Your task to perform on an android device: turn on translation in the chrome app Image 0: 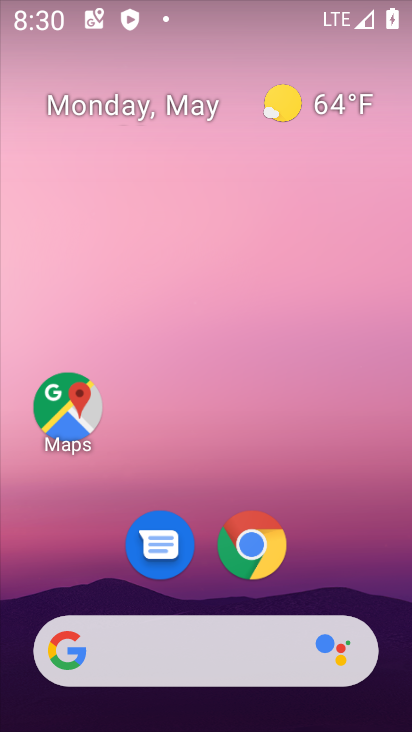
Step 0: click (248, 578)
Your task to perform on an android device: turn on translation in the chrome app Image 1: 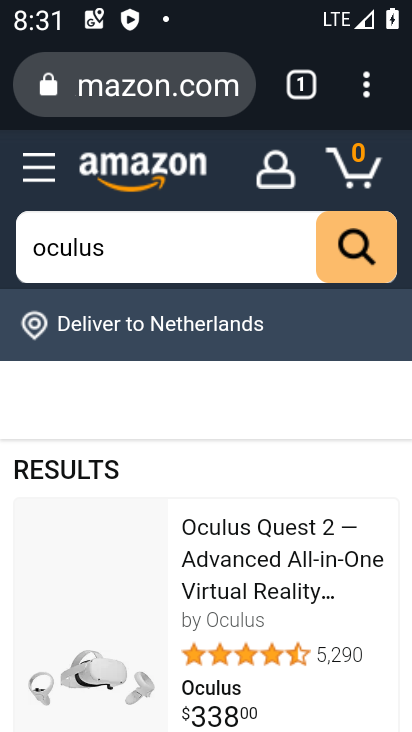
Step 1: drag from (370, 87) to (194, 591)
Your task to perform on an android device: turn on translation in the chrome app Image 2: 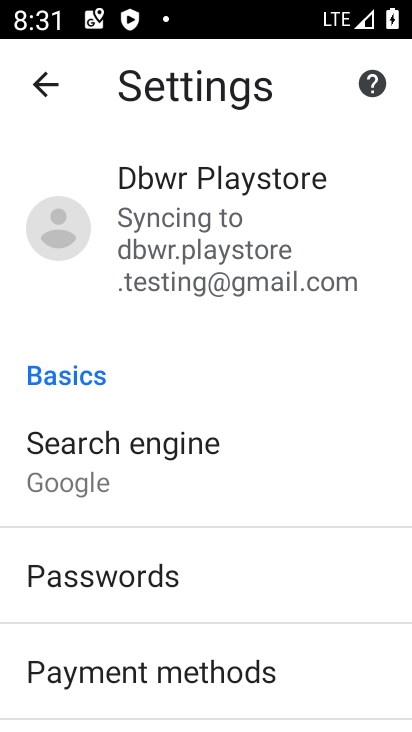
Step 2: drag from (242, 613) to (205, 177)
Your task to perform on an android device: turn on translation in the chrome app Image 3: 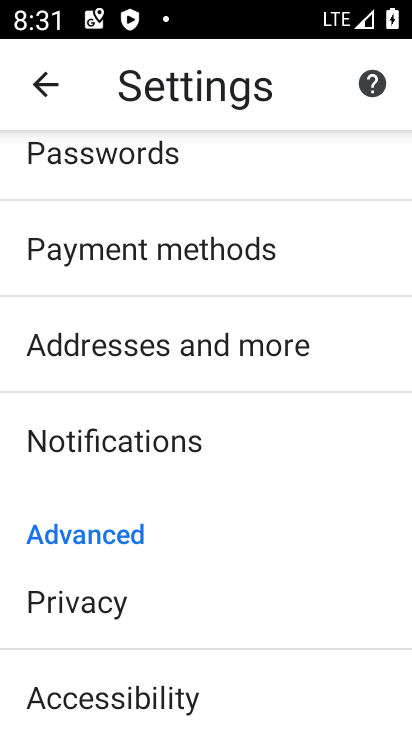
Step 3: drag from (206, 645) to (155, 106)
Your task to perform on an android device: turn on translation in the chrome app Image 4: 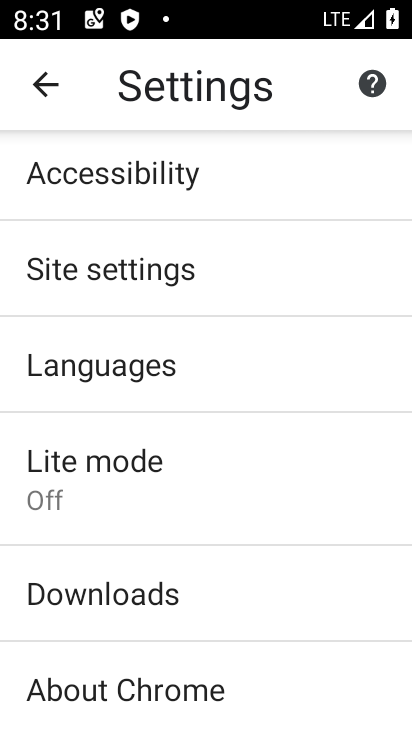
Step 4: click (119, 385)
Your task to perform on an android device: turn on translation in the chrome app Image 5: 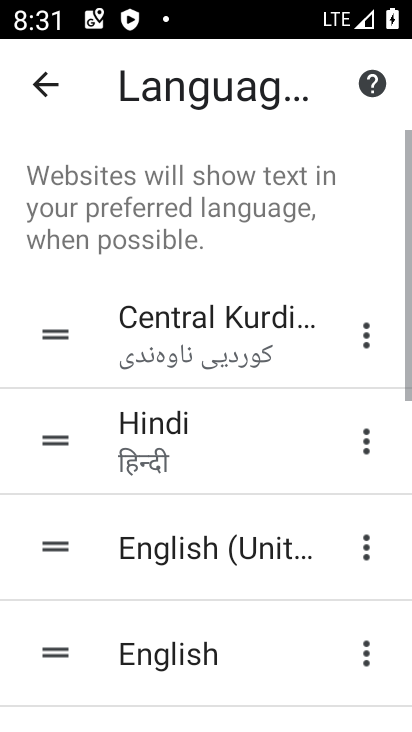
Step 5: drag from (348, 588) to (302, 146)
Your task to perform on an android device: turn on translation in the chrome app Image 6: 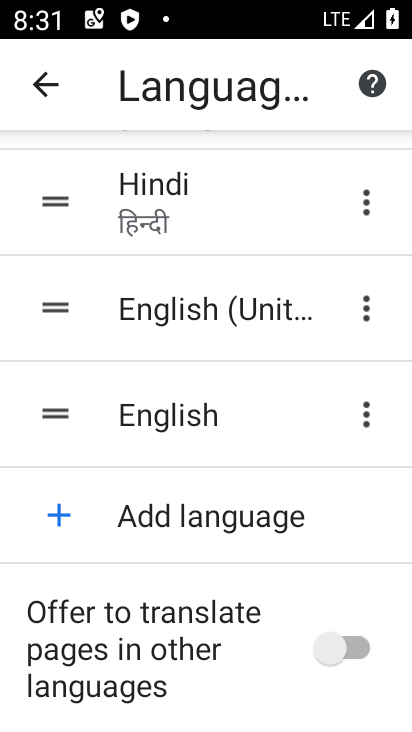
Step 6: click (363, 645)
Your task to perform on an android device: turn on translation in the chrome app Image 7: 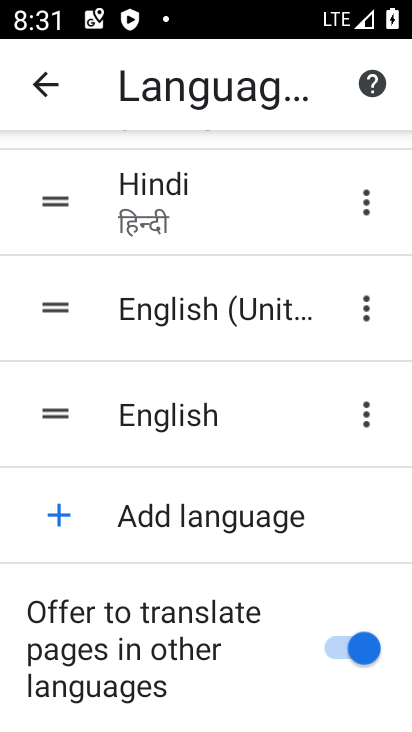
Step 7: task complete